Your task to perform on an android device: Open display settings Image 0: 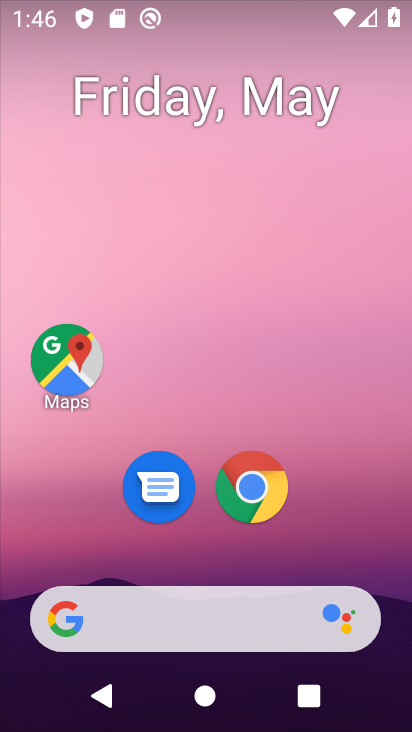
Step 0: drag from (380, 573) to (343, 10)
Your task to perform on an android device: Open display settings Image 1: 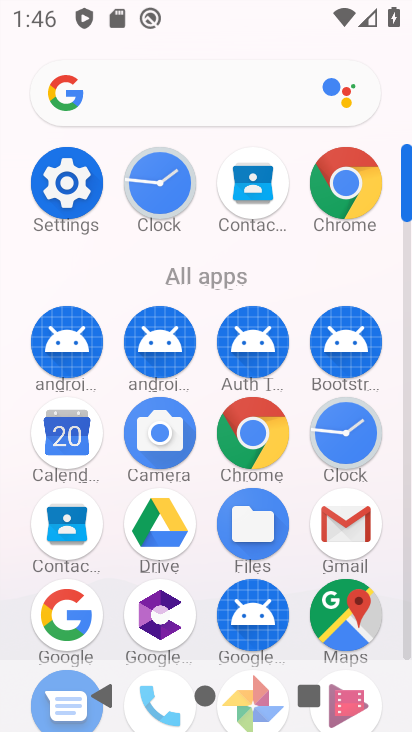
Step 1: click (62, 180)
Your task to perform on an android device: Open display settings Image 2: 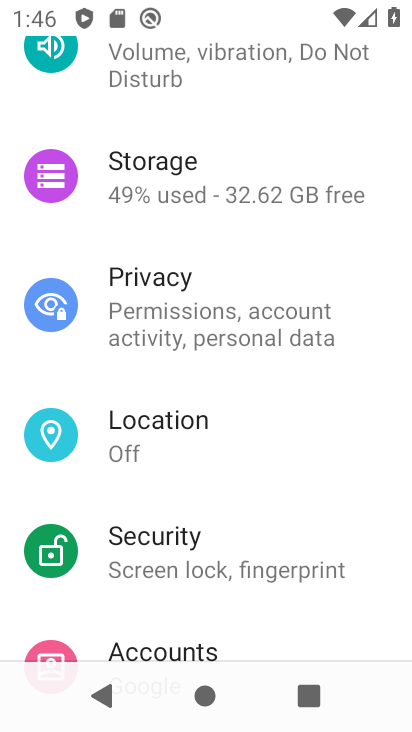
Step 2: drag from (290, 434) to (259, 100)
Your task to perform on an android device: Open display settings Image 3: 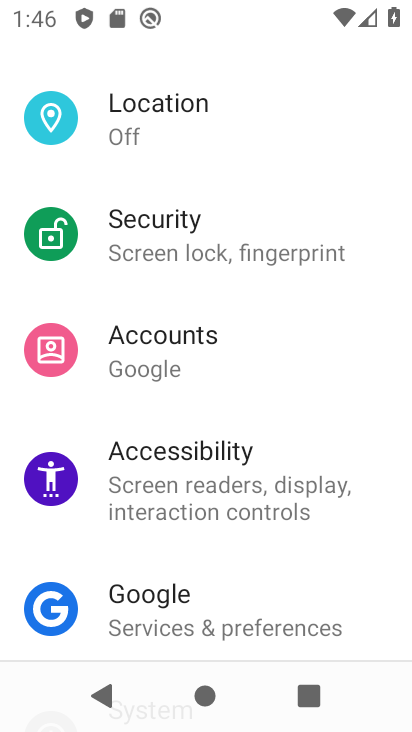
Step 3: drag from (266, 165) to (285, 501)
Your task to perform on an android device: Open display settings Image 4: 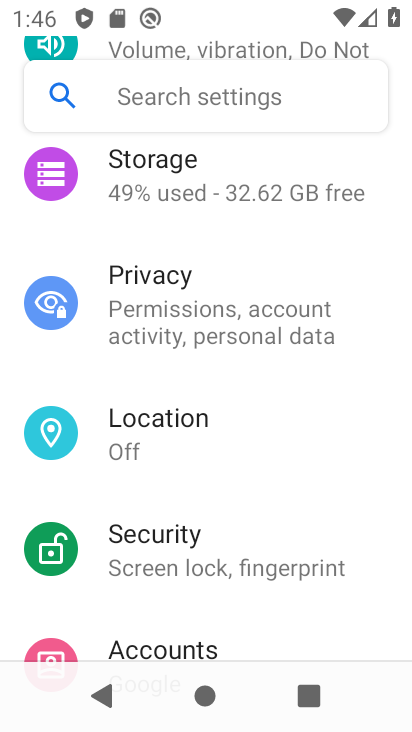
Step 4: drag from (290, 273) to (307, 460)
Your task to perform on an android device: Open display settings Image 5: 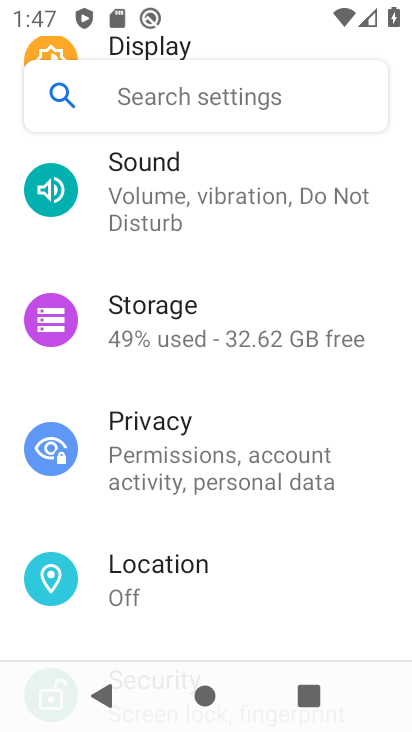
Step 5: drag from (254, 235) to (265, 421)
Your task to perform on an android device: Open display settings Image 6: 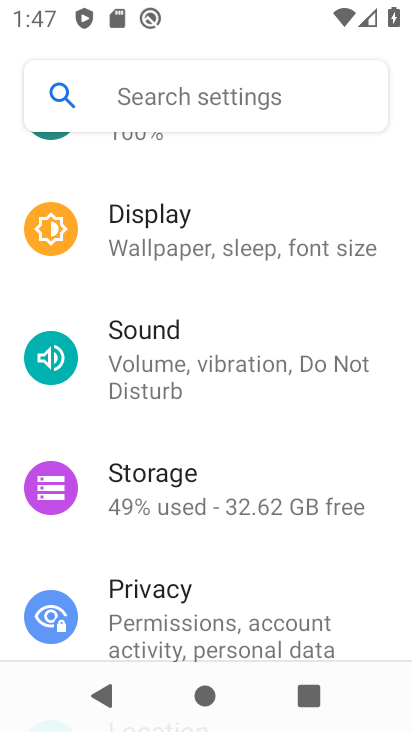
Step 6: click (172, 225)
Your task to perform on an android device: Open display settings Image 7: 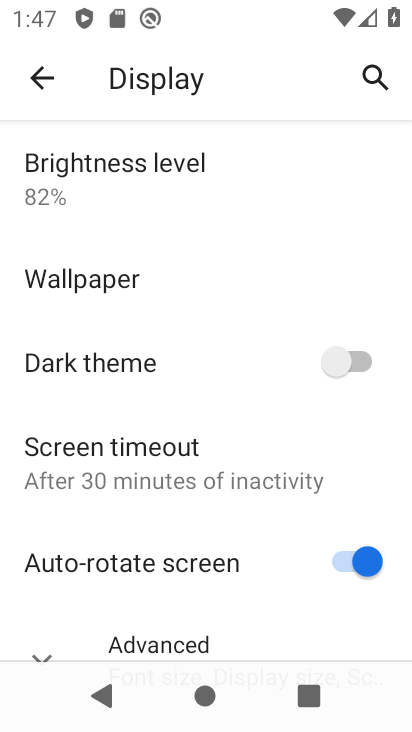
Step 7: task complete